Your task to perform on an android device: set the stopwatch Image 0: 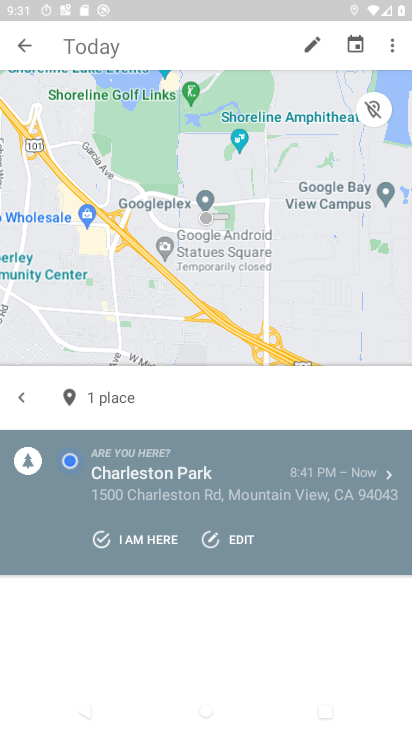
Step 0: press home button
Your task to perform on an android device: set the stopwatch Image 1: 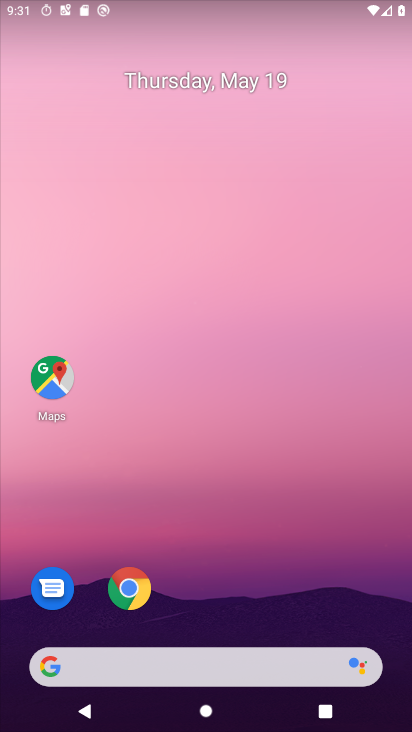
Step 1: drag from (151, 657) to (314, 171)
Your task to perform on an android device: set the stopwatch Image 2: 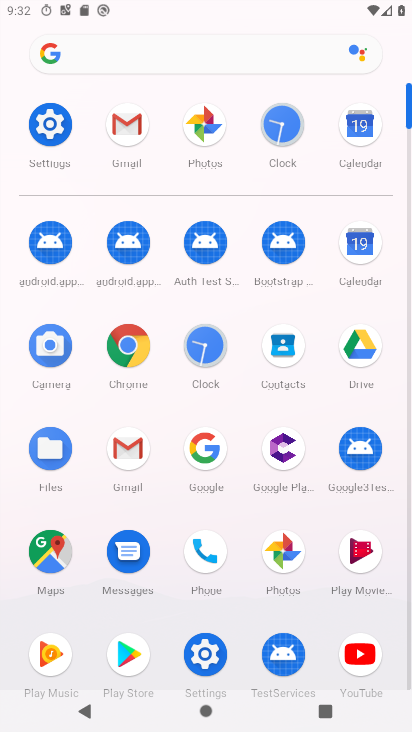
Step 2: click (286, 132)
Your task to perform on an android device: set the stopwatch Image 3: 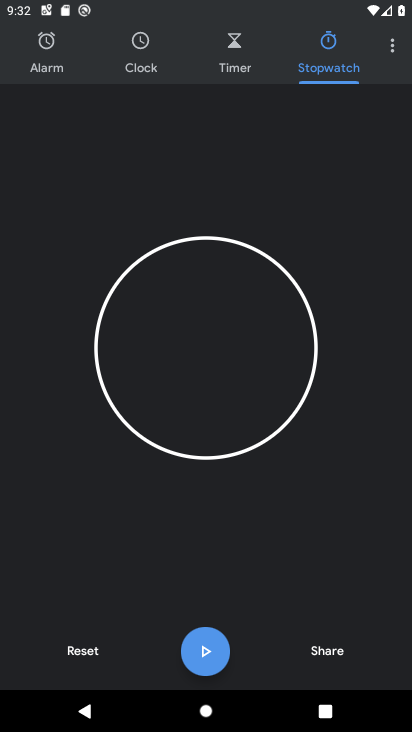
Step 3: click (87, 649)
Your task to perform on an android device: set the stopwatch Image 4: 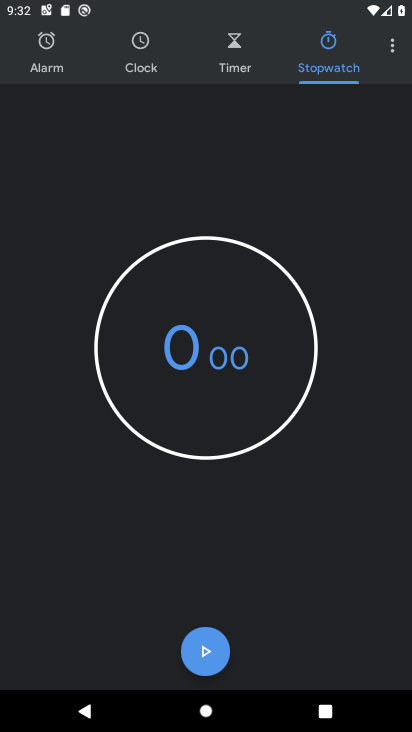
Step 4: click (212, 359)
Your task to perform on an android device: set the stopwatch Image 5: 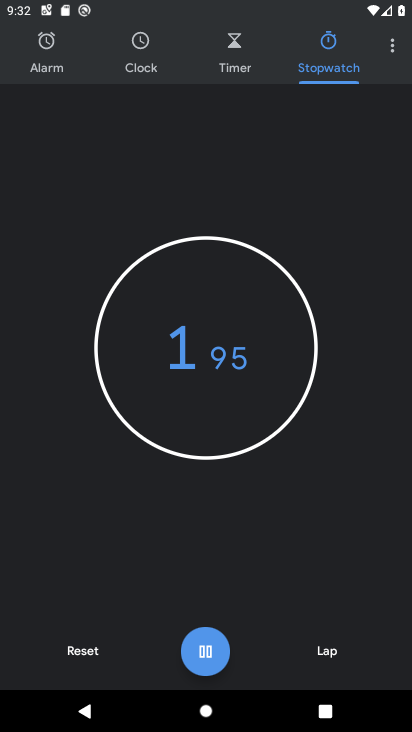
Step 5: click (229, 337)
Your task to perform on an android device: set the stopwatch Image 6: 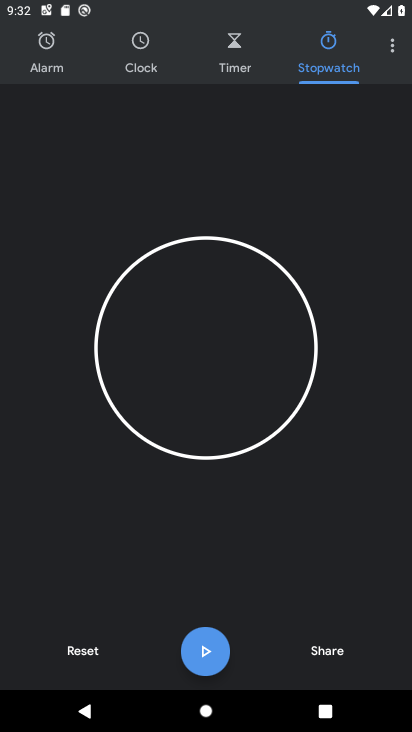
Step 6: task complete